Your task to perform on an android device: Open Google Chrome and open the bookmarks view Image 0: 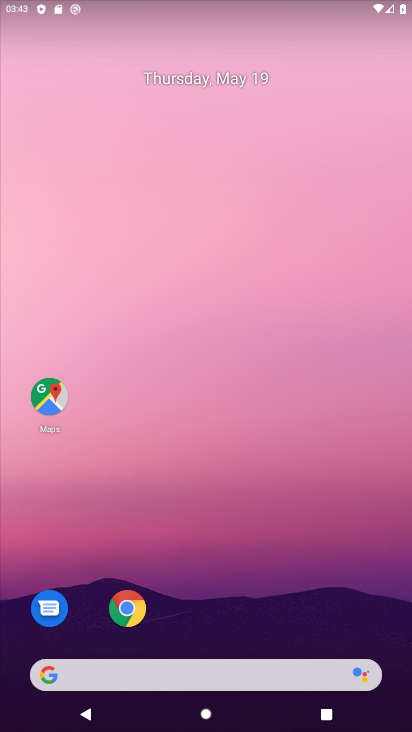
Step 0: click (128, 607)
Your task to perform on an android device: Open Google Chrome and open the bookmarks view Image 1: 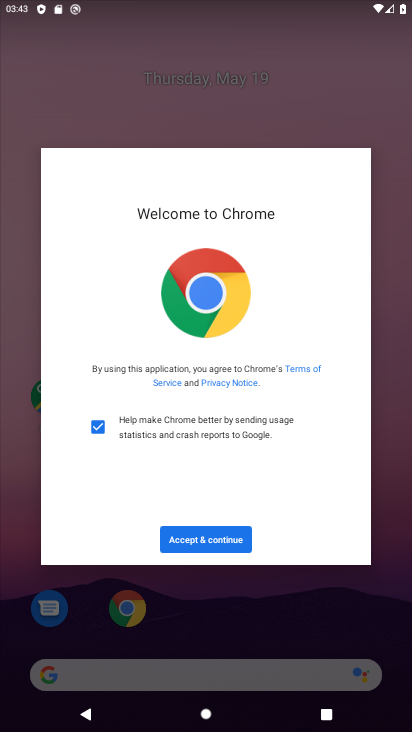
Step 1: click (192, 540)
Your task to perform on an android device: Open Google Chrome and open the bookmarks view Image 2: 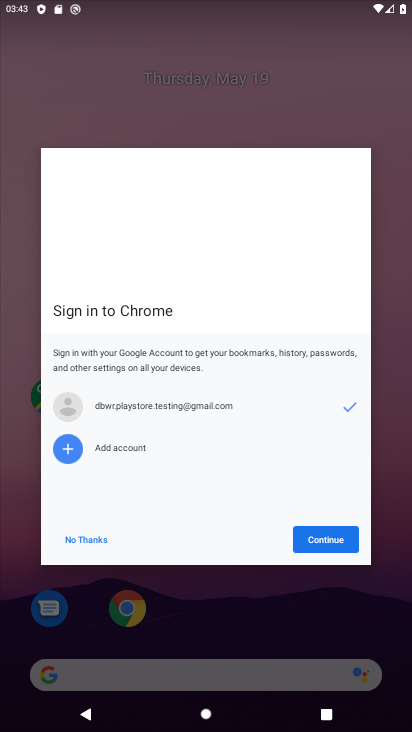
Step 2: click (327, 540)
Your task to perform on an android device: Open Google Chrome and open the bookmarks view Image 3: 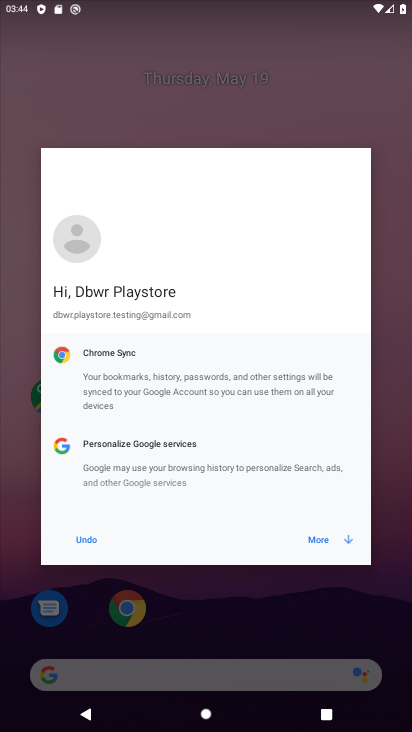
Step 3: click (327, 540)
Your task to perform on an android device: Open Google Chrome and open the bookmarks view Image 4: 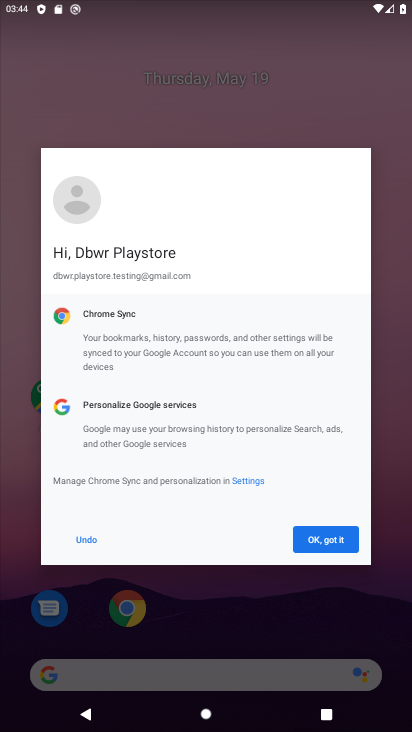
Step 4: click (327, 540)
Your task to perform on an android device: Open Google Chrome and open the bookmarks view Image 5: 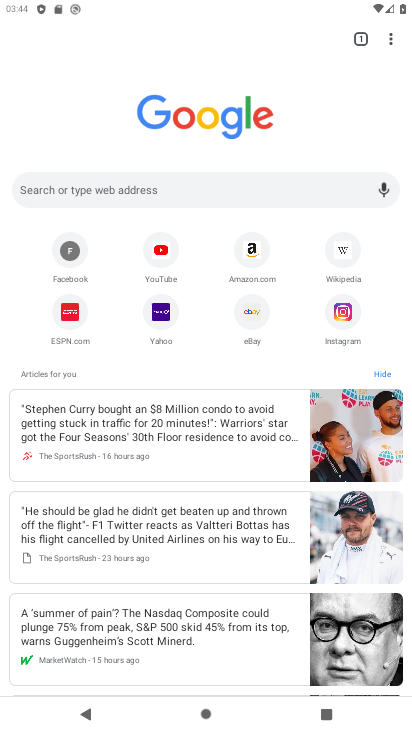
Step 5: click (391, 37)
Your task to perform on an android device: Open Google Chrome and open the bookmarks view Image 6: 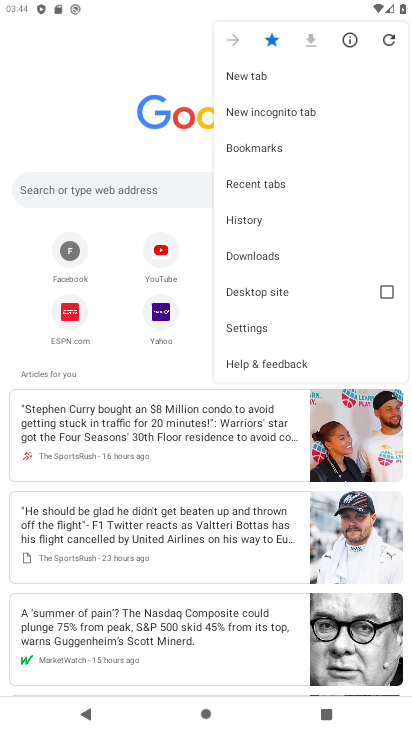
Step 6: click (272, 145)
Your task to perform on an android device: Open Google Chrome and open the bookmarks view Image 7: 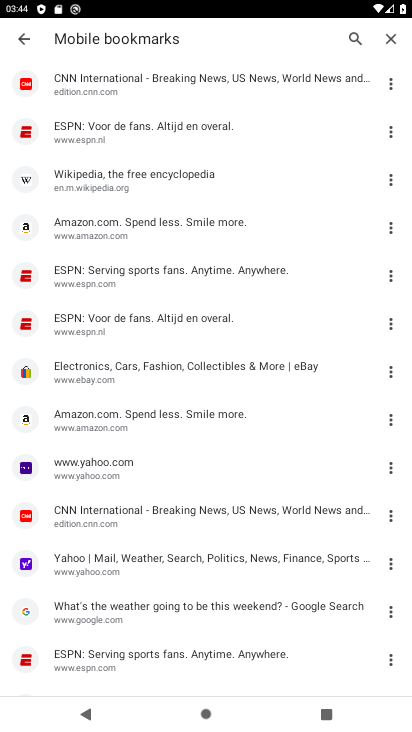
Step 7: task complete